Your task to perform on an android device: When is my next appointment? Image 0: 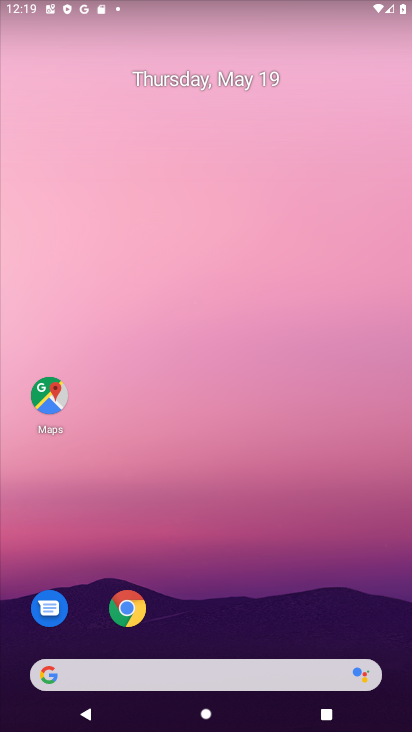
Step 0: drag from (262, 585) to (245, 258)
Your task to perform on an android device: When is my next appointment? Image 1: 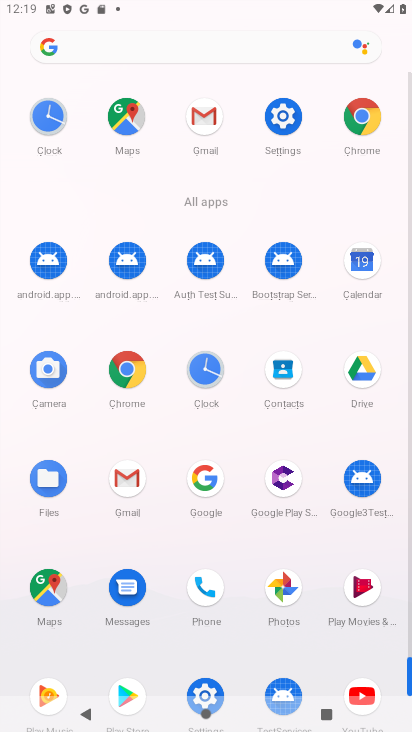
Step 1: click (366, 255)
Your task to perform on an android device: When is my next appointment? Image 2: 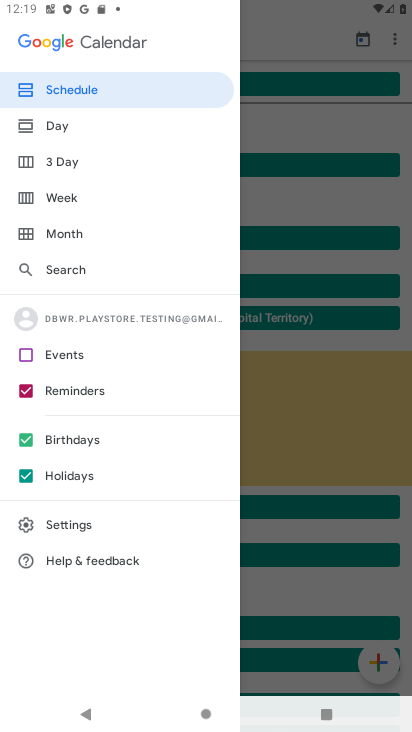
Step 2: click (281, 109)
Your task to perform on an android device: When is my next appointment? Image 3: 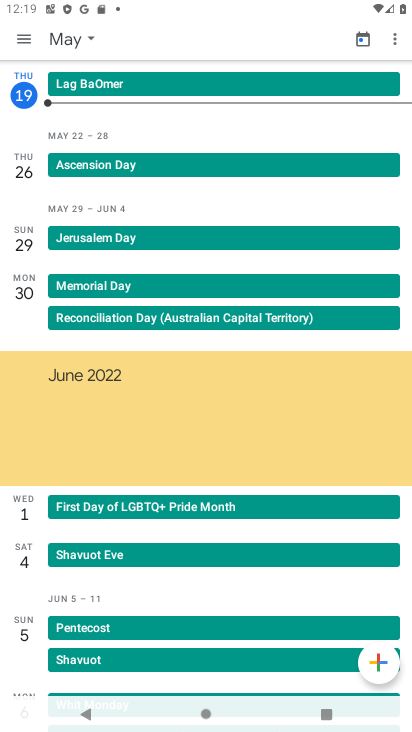
Step 3: click (25, 36)
Your task to perform on an android device: When is my next appointment? Image 4: 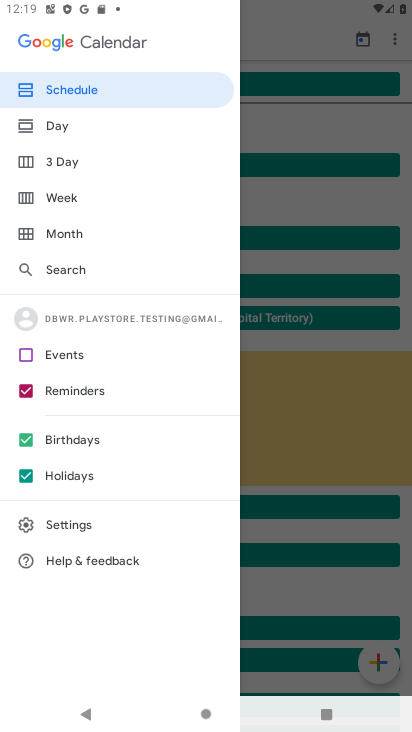
Step 4: click (78, 225)
Your task to perform on an android device: When is my next appointment? Image 5: 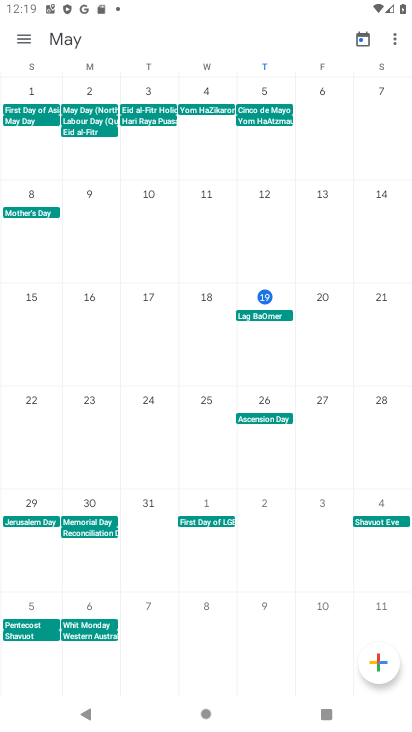
Step 5: click (319, 298)
Your task to perform on an android device: When is my next appointment? Image 6: 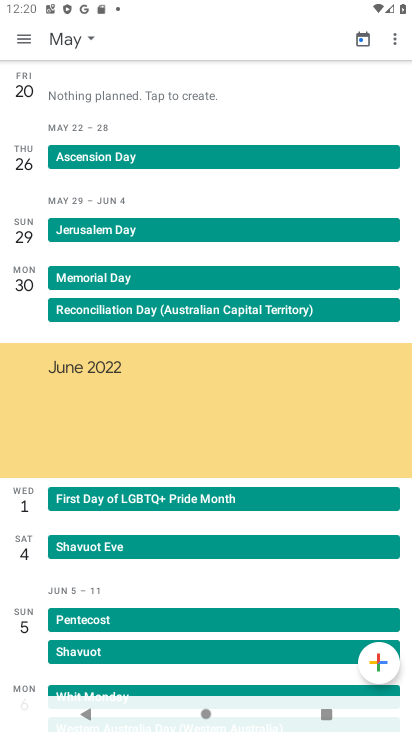
Step 6: task complete